Your task to perform on an android device: Go to Wikipedia Image 0: 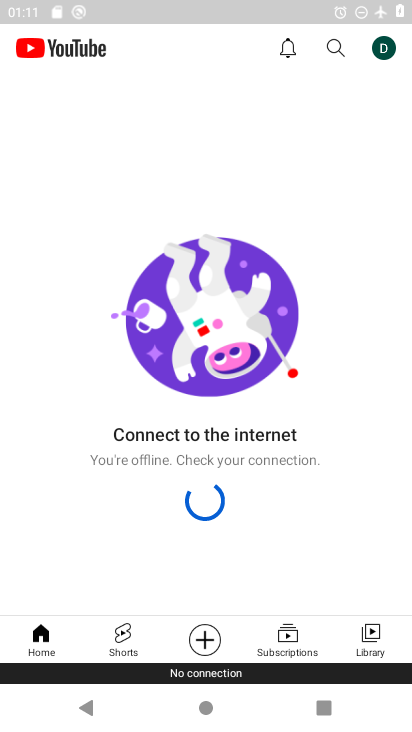
Step 0: press home button
Your task to perform on an android device: Go to Wikipedia Image 1: 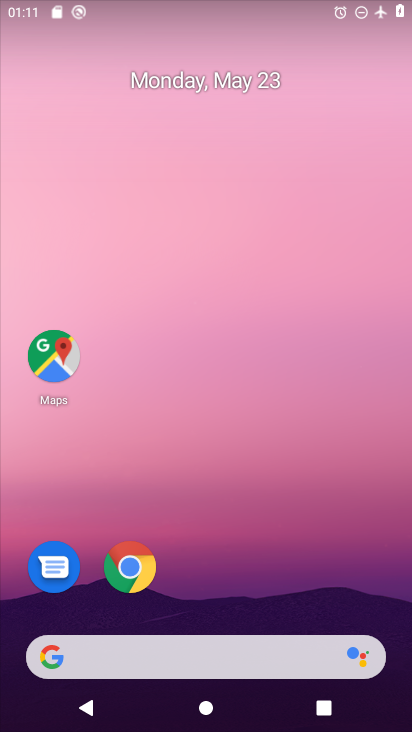
Step 1: click (148, 574)
Your task to perform on an android device: Go to Wikipedia Image 2: 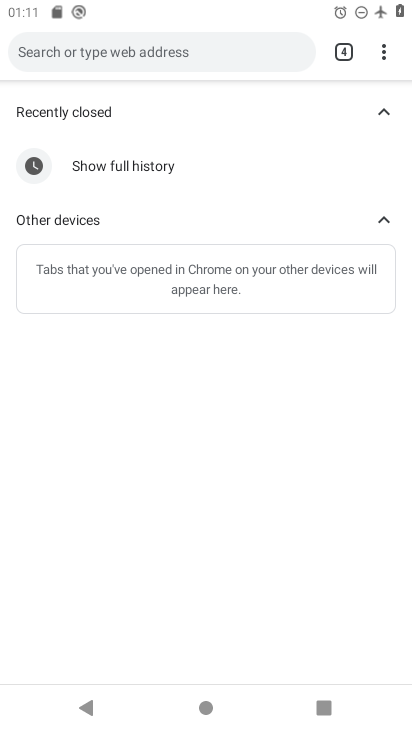
Step 2: click (222, 41)
Your task to perform on an android device: Go to Wikipedia Image 3: 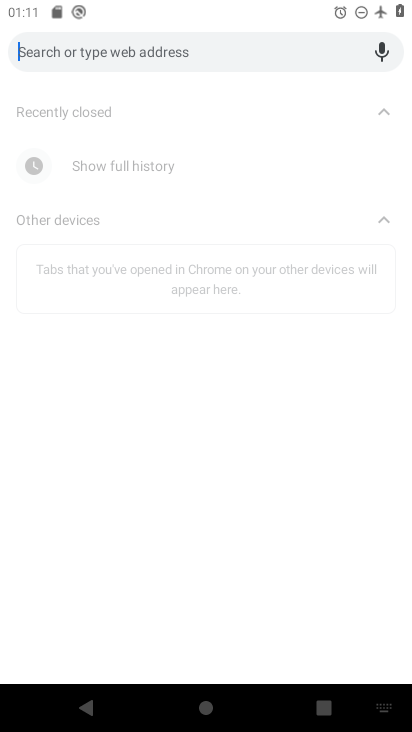
Step 3: click (126, 46)
Your task to perform on an android device: Go to Wikipedia Image 4: 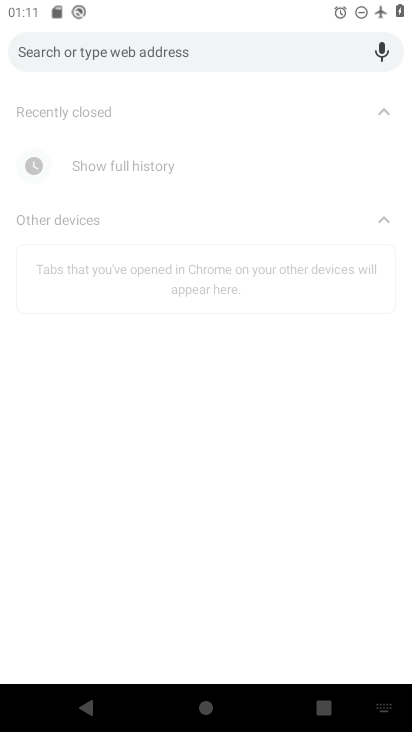
Step 4: type "Wikipedia"
Your task to perform on an android device: Go to Wikipedia Image 5: 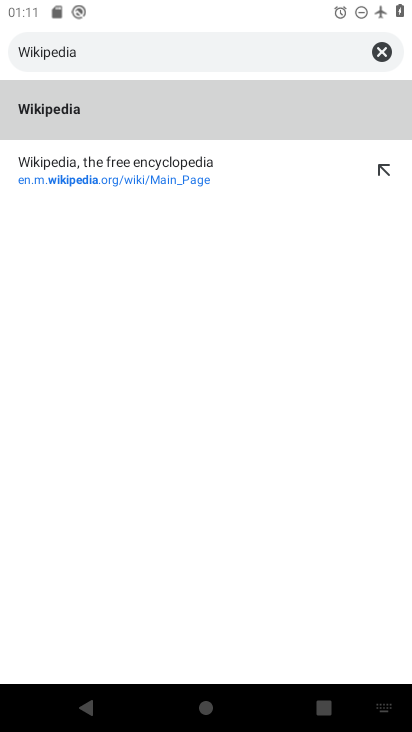
Step 5: click (108, 103)
Your task to perform on an android device: Go to Wikipedia Image 6: 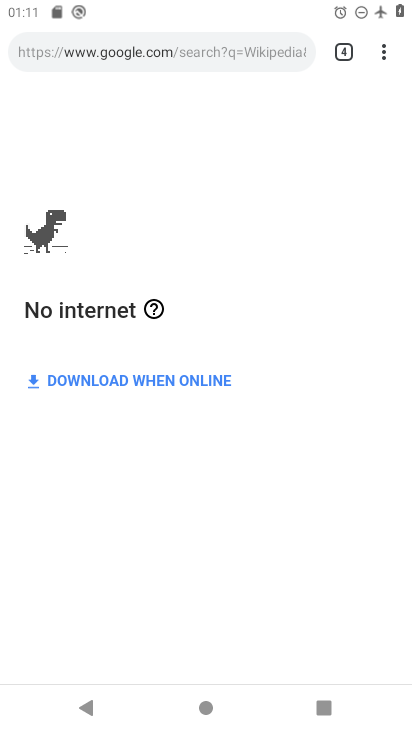
Step 6: task complete